Your task to perform on an android device: toggle notification dots Image 0: 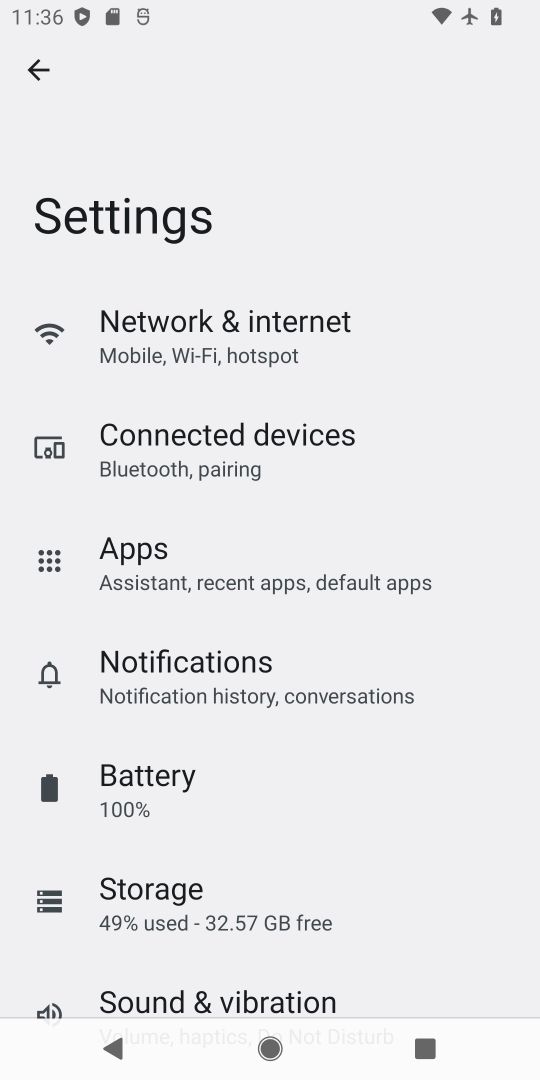
Step 0: click (248, 684)
Your task to perform on an android device: toggle notification dots Image 1: 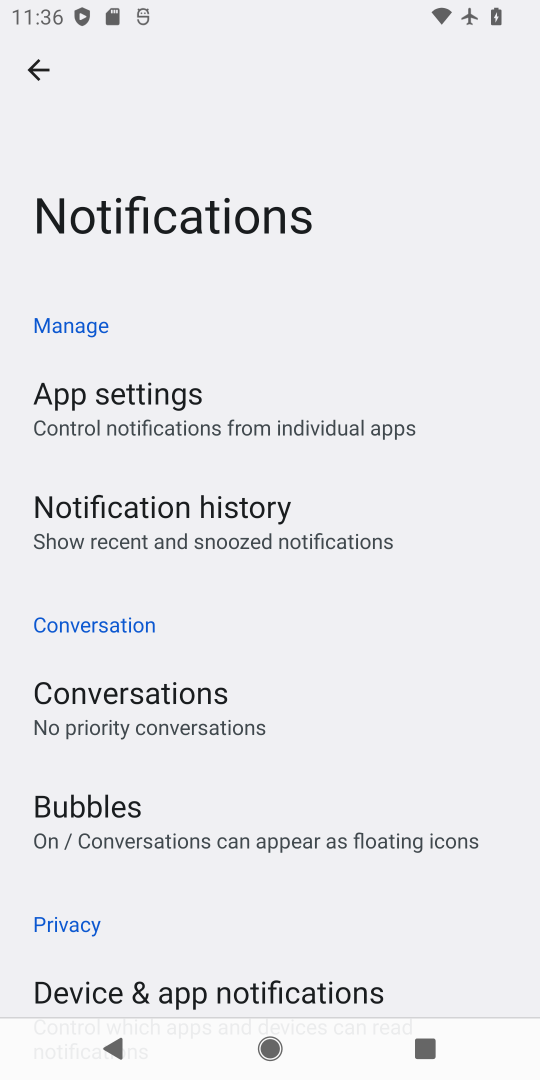
Step 1: drag from (206, 829) to (182, 504)
Your task to perform on an android device: toggle notification dots Image 2: 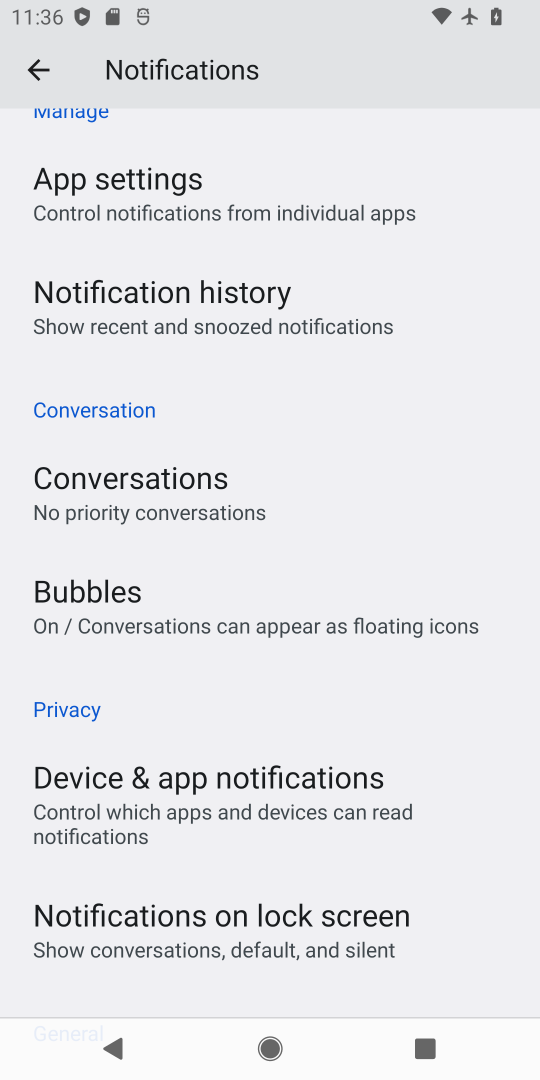
Step 2: drag from (205, 916) to (294, 155)
Your task to perform on an android device: toggle notification dots Image 3: 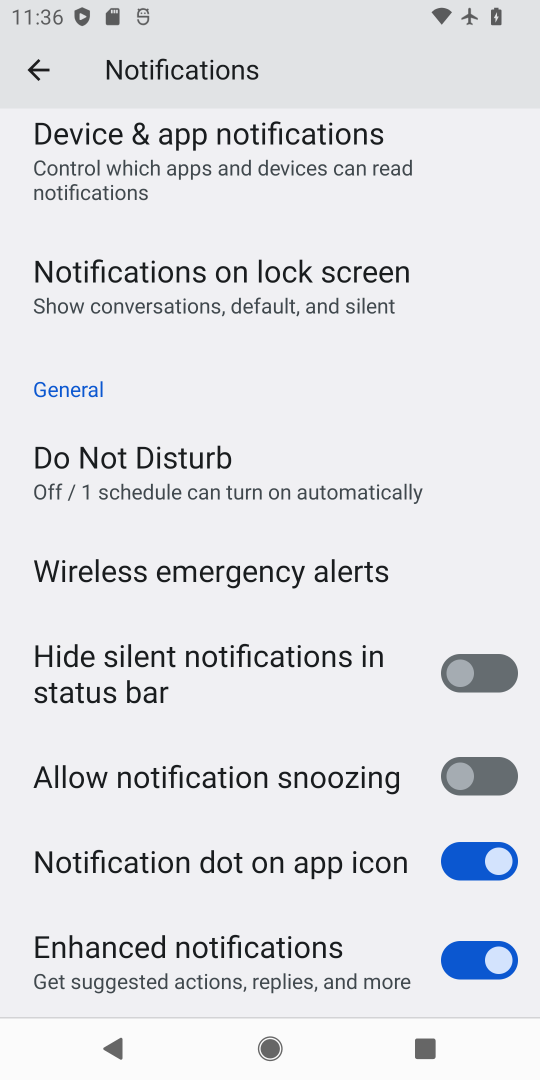
Step 3: click (448, 864)
Your task to perform on an android device: toggle notification dots Image 4: 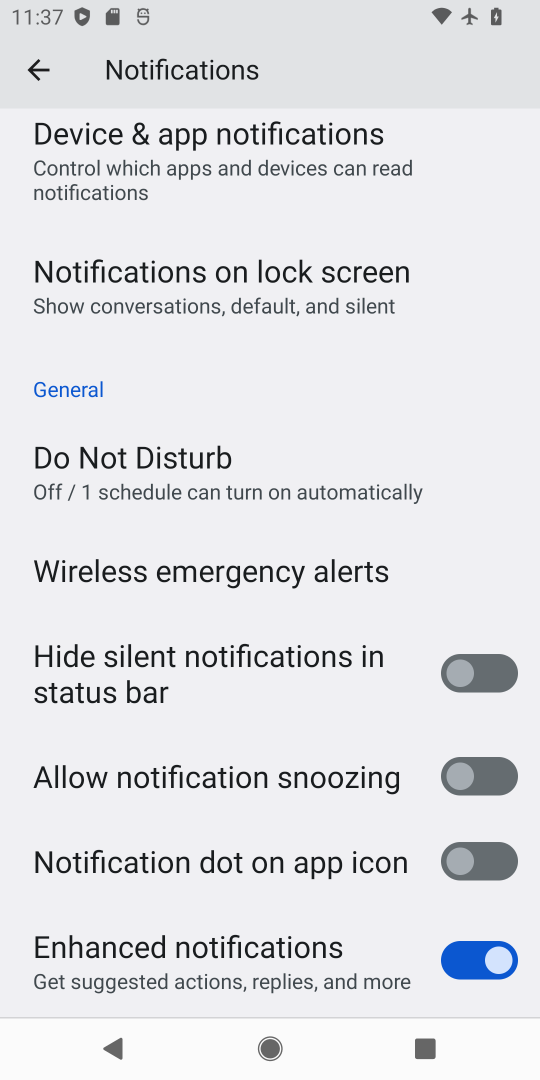
Step 4: task complete